Your task to perform on an android device: When is my next appointment? Image 0: 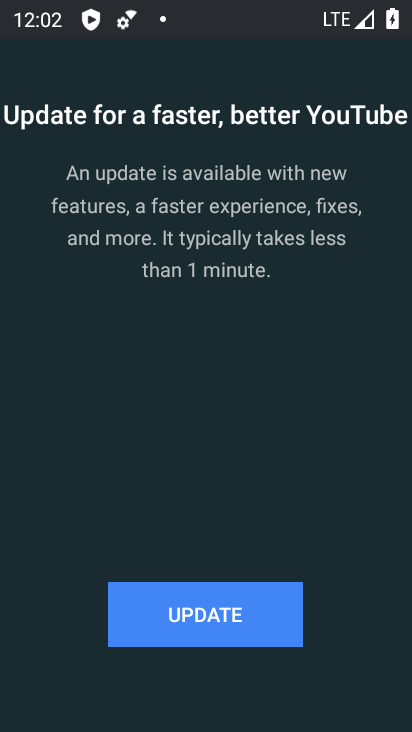
Step 0: click (245, 549)
Your task to perform on an android device: When is my next appointment? Image 1: 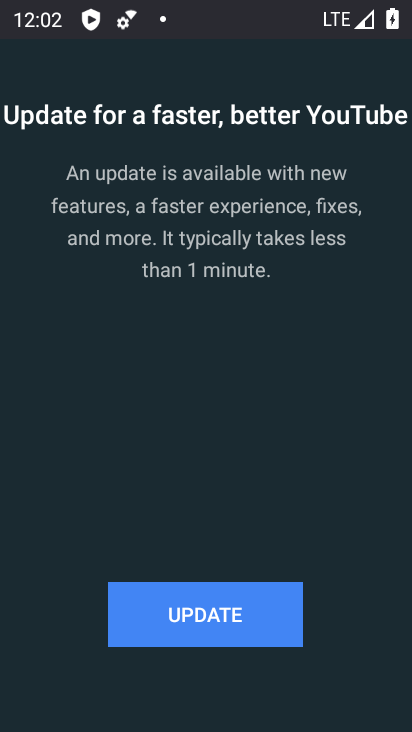
Step 1: press home button
Your task to perform on an android device: When is my next appointment? Image 2: 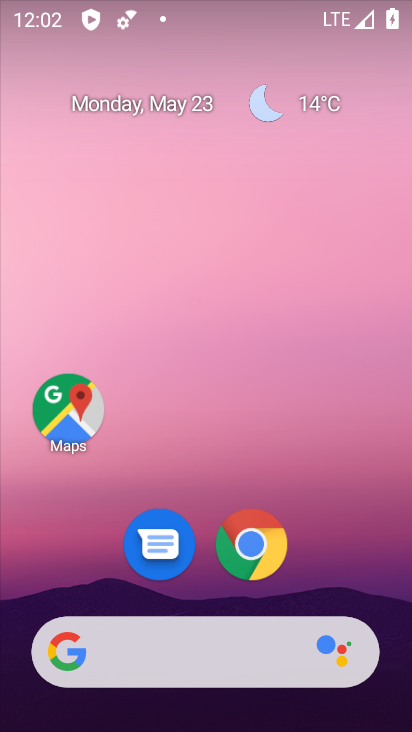
Step 2: drag from (311, 580) to (240, 6)
Your task to perform on an android device: When is my next appointment? Image 3: 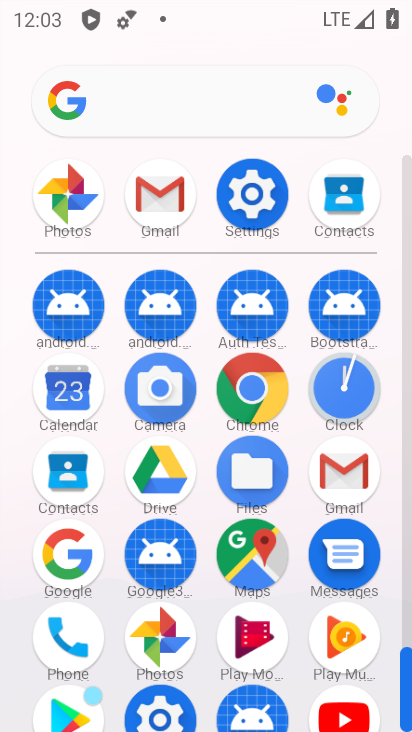
Step 3: drag from (217, 662) to (233, 318)
Your task to perform on an android device: When is my next appointment? Image 4: 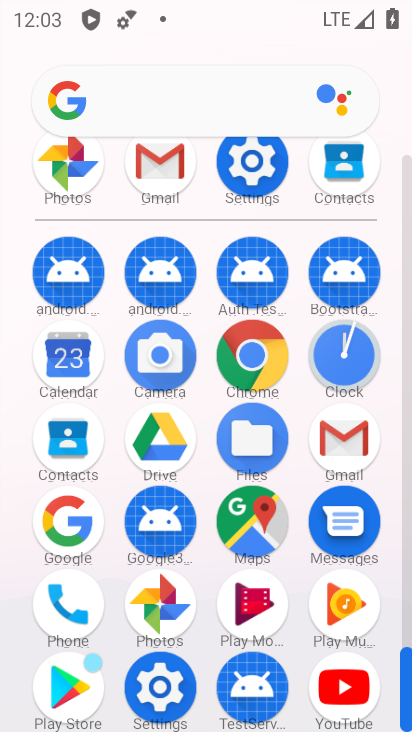
Step 4: click (56, 360)
Your task to perform on an android device: When is my next appointment? Image 5: 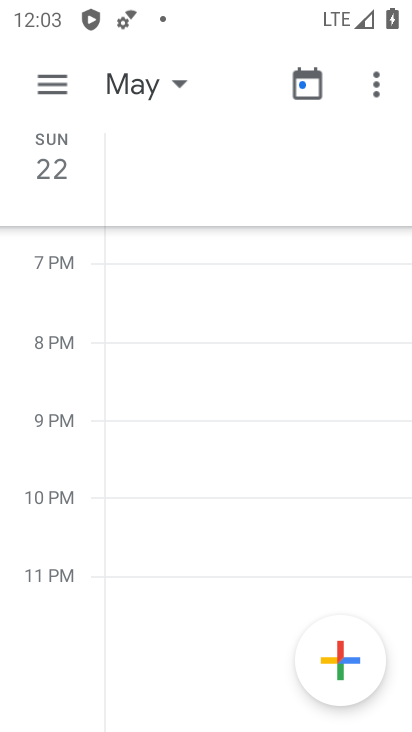
Step 5: click (131, 93)
Your task to perform on an android device: When is my next appointment? Image 6: 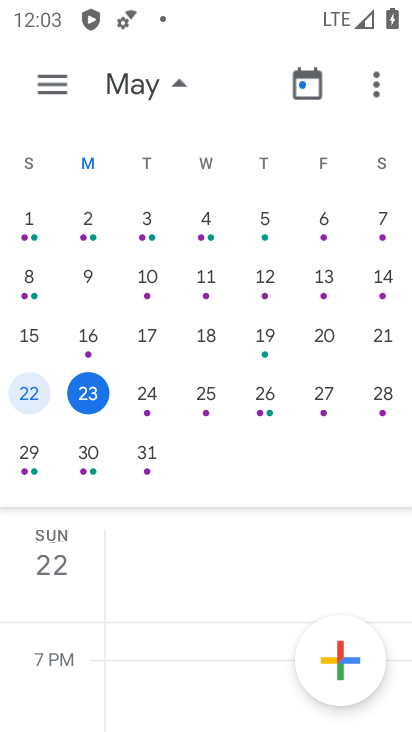
Step 6: click (59, 88)
Your task to perform on an android device: When is my next appointment? Image 7: 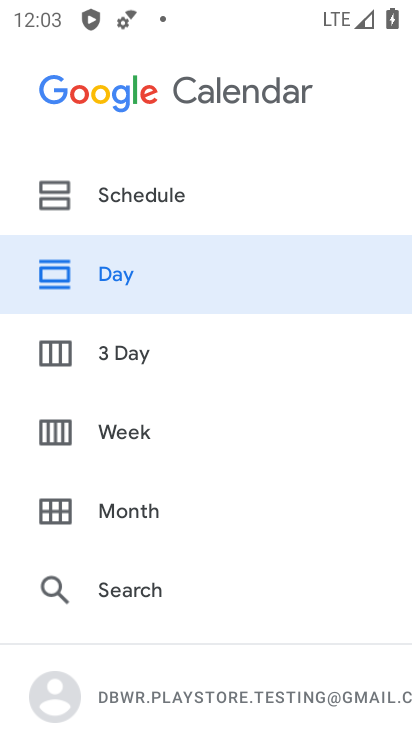
Step 7: click (131, 201)
Your task to perform on an android device: When is my next appointment? Image 8: 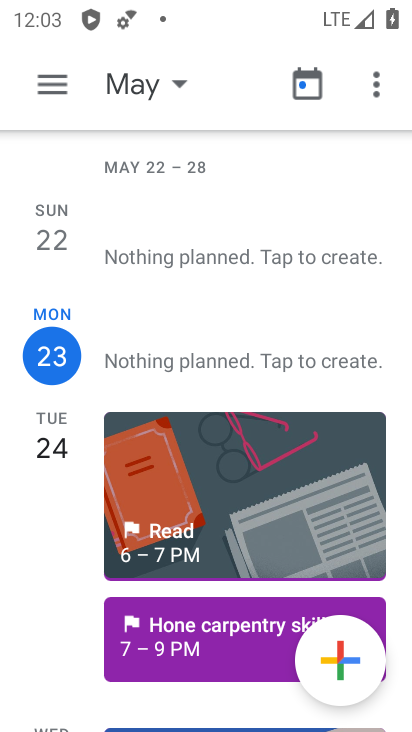
Step 8: task complete